Your task to perform on an android device: turn smart compose on in the gmail app Image 0: 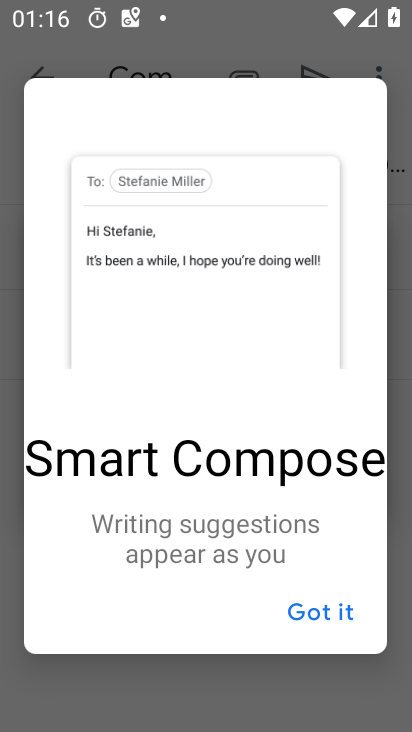
Step 0: press home button
Your task to perform on an android device: turn smart compose on in the gmail app Image 1: 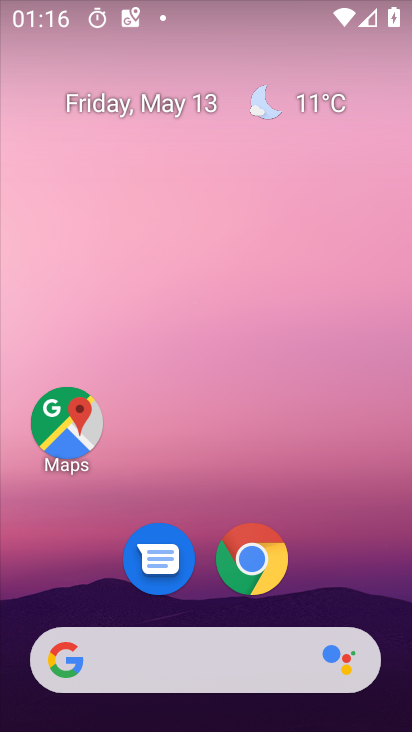
Step 1: drag from (358, 552) to (332, 125)
Your task to perform on an android device: turn smart compose on in the gmail app Image 2: 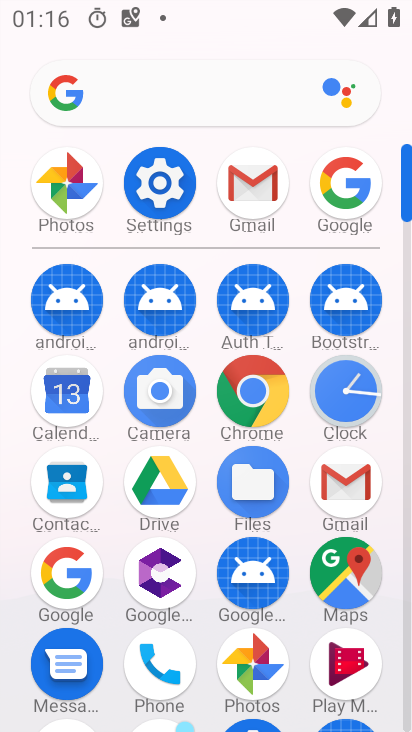
Step 2: click (246, 189)
Your task to perform on an android device: turn smart compose on in the gmail app Image 3: 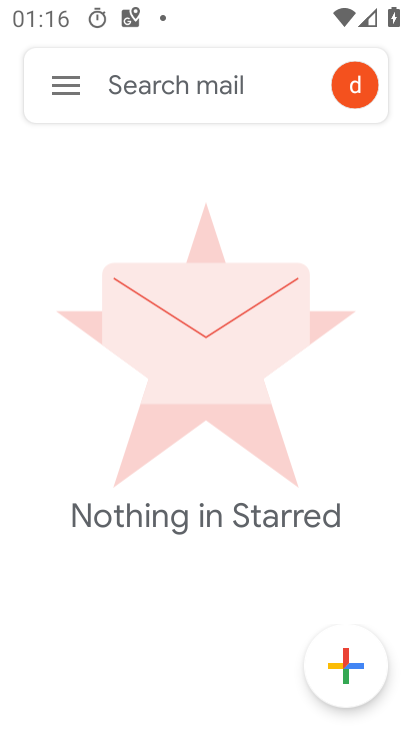
Step 3: click (78, 92)
Your task to perform on an android device: turn smart compose on in the gmail app Image 4: 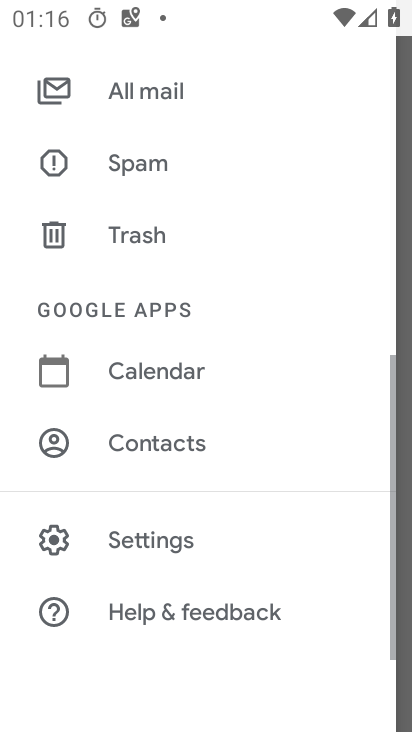
Step 4: click (195, 542)
Your task to perform on an android device: turn smart compose on in the gmail app Image 5: 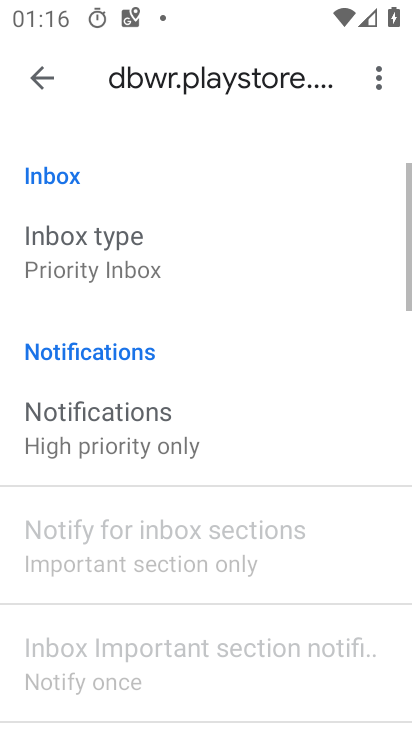
Step 5: task complete